Your task to perform on an android device: Go to Amazon Image 0: 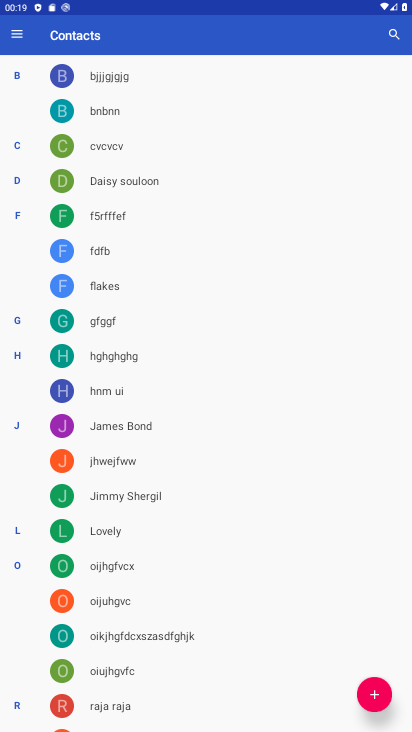
Step 0: press home button
Your task to perform on an android device: Go to Amazon Image 1: 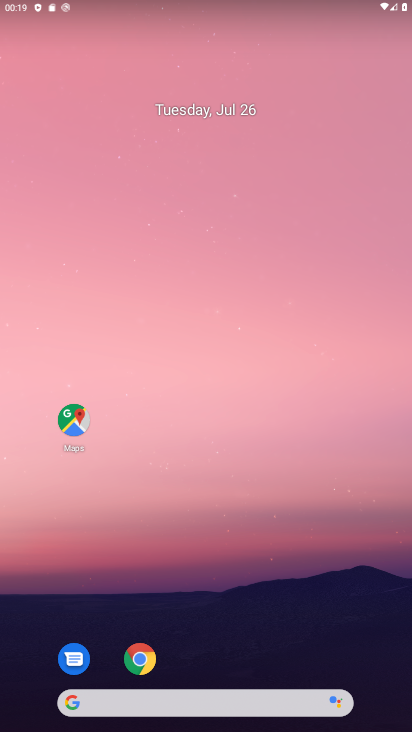
Step 1: drag from (289, 549) to (239, 72)
Your task to perform on an android device: Go to Amazon Image 2: 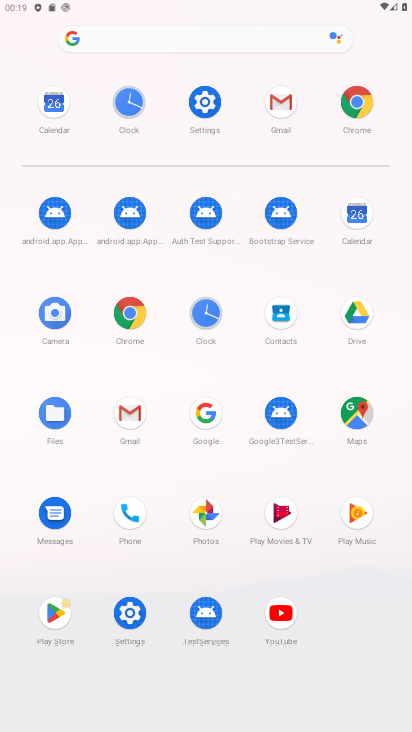
Step 2: click (361, 102)
Your task to perform on an android device: Go to Amazon Image 3: 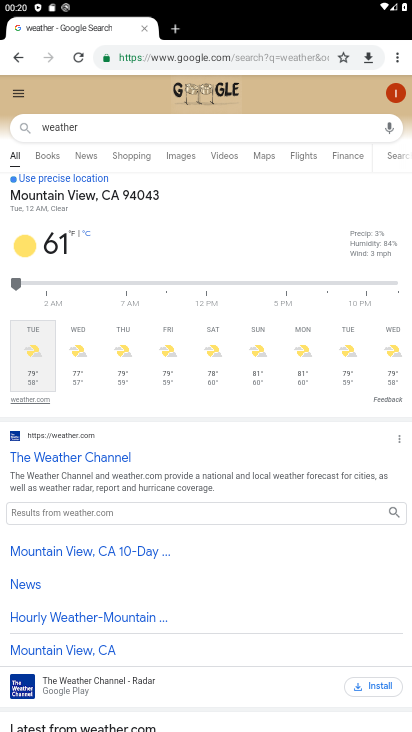
Step 3: click (274, 57)
Your task to perform on an android device: Go to Amazon Image 4: 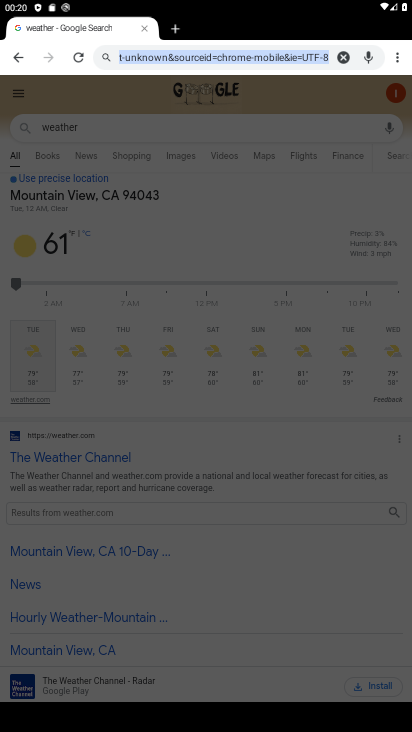
Step 4: type "amazon"
Your task to perform on an android device: Go to Amazon Image 5: 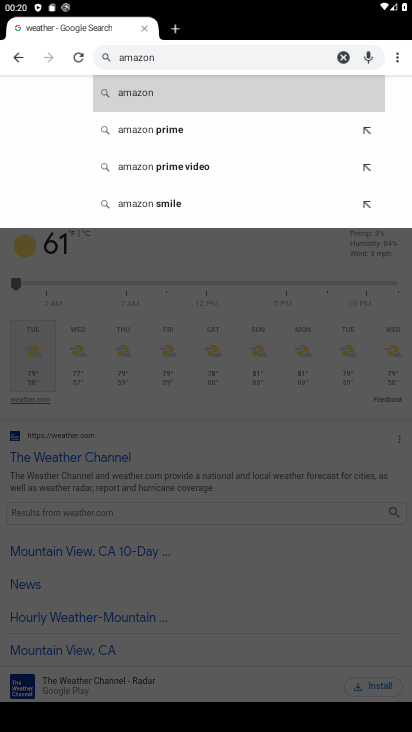
Step 5: click (171, 99)
Your task to perform on an android device: Go to Amazon Image 6: 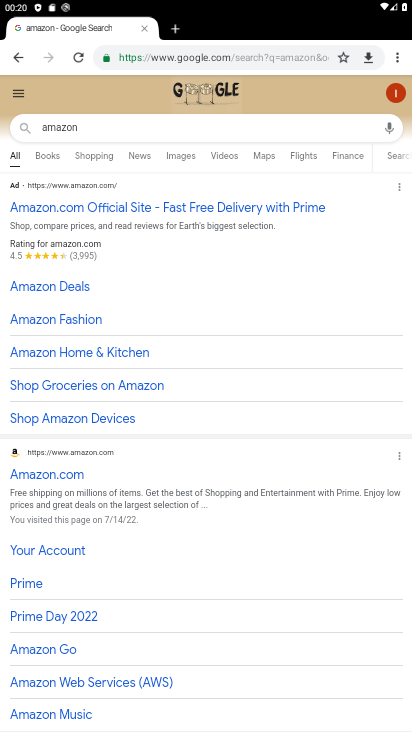
Step 6: click (66, 479)
Your task to perform on an android device: Go to Amazon Image 7: 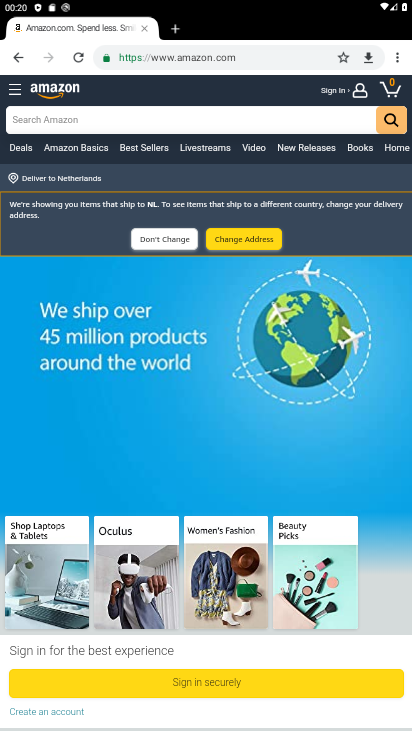
Step 7: task complete